Your task to perform on an android device: clear all cookies in the chrome app Image 0: 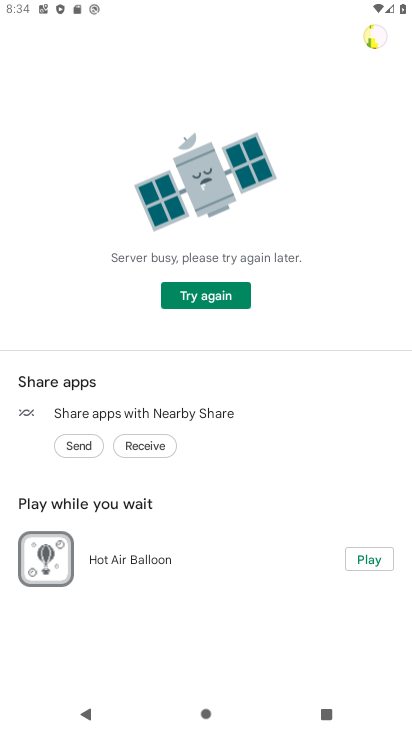
Step 0: press home button
Your task to perform on an android device: clear all cookies in the chrome app Image 1: 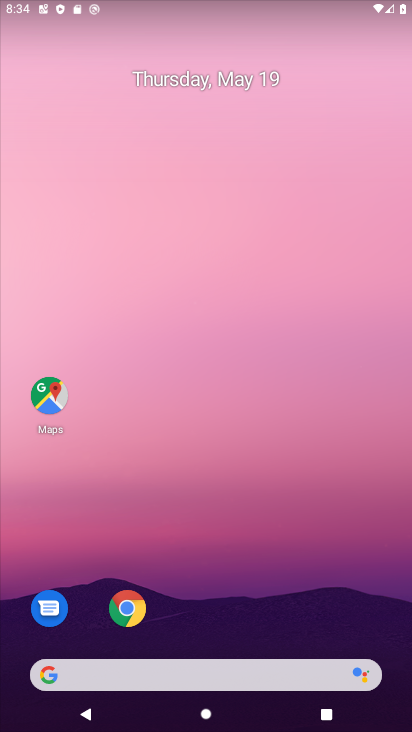
Step 1: click (134, 613)
Your task to perform on an android device: clear all cookies in the chrome app Image 2: 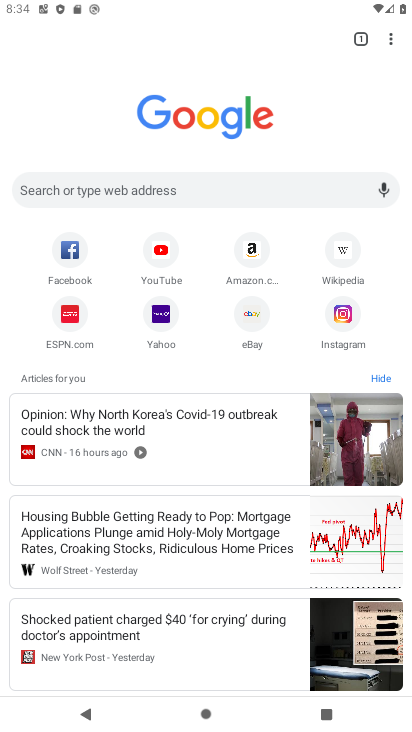
Step 2: click (390, 38)
Your task to perform on an android device: clear all cookies in the chrome app Image 3: 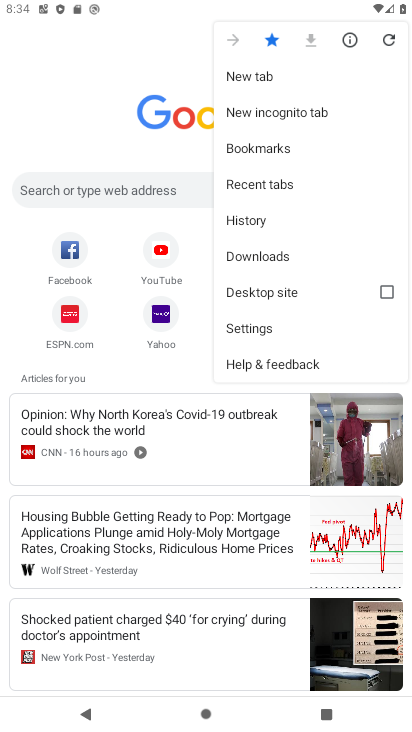
Step 3: click (261, 330)
Your task to perform on an android device: clear all cookies in the chrome app Image 4: 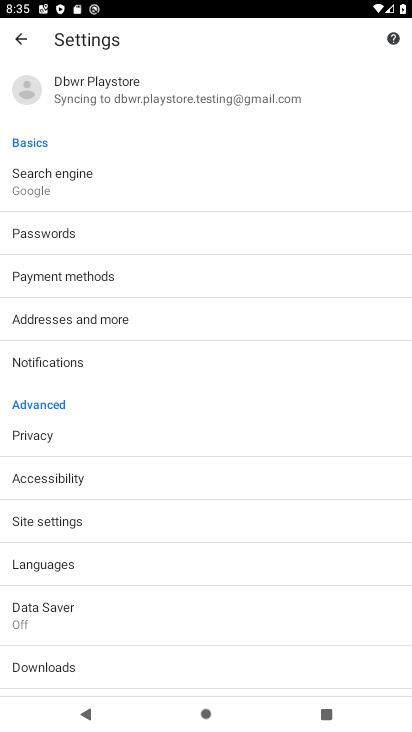
Step 4: click (47, 523)
Your task to perform on an android device: clear all cookies in the chrome app Image 5: 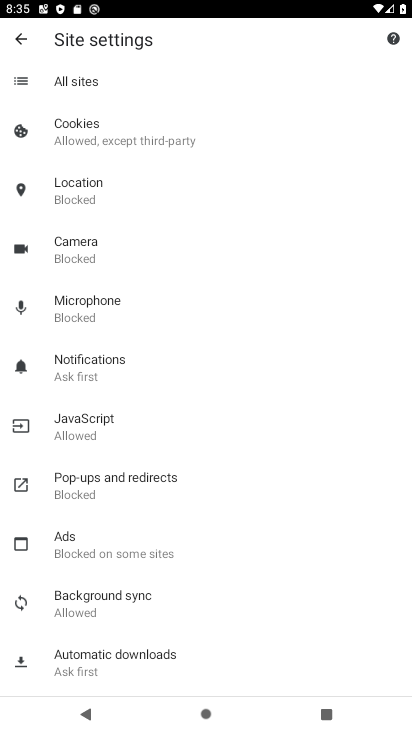
Step 5: click (62, 142)
Your task to perform on an android device: clear all cookies in the chrome app Image 6: 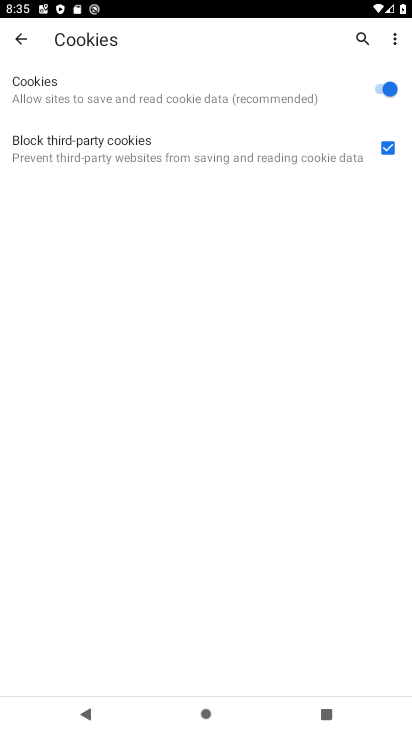
Step 6: click (15, 44)
Your task to perform on an android device: clear all cookies in the chrome app Image 7: 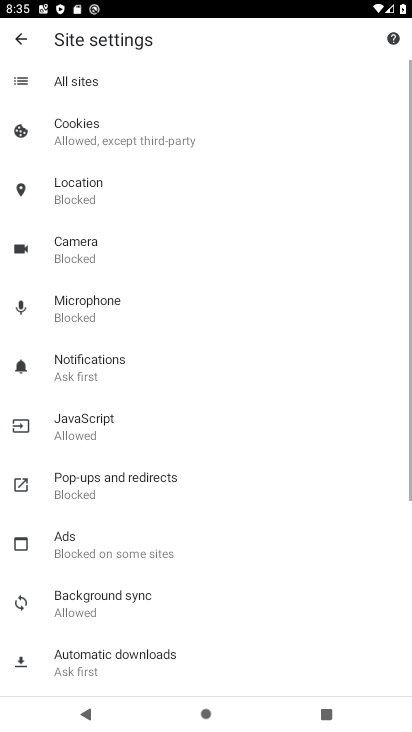
Step 7: click (15, 44)
Your task to perform on an android device: clear all cookies in the chrome app Image 8: 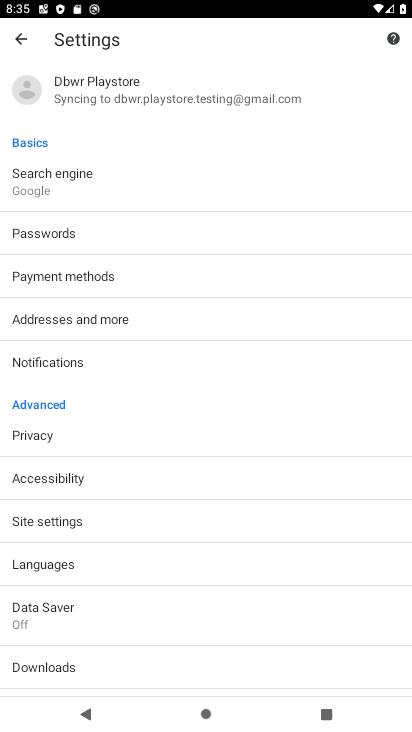
Step 8: click (20, 41)
Your task to perform on an android device: clear all cookies in the chrome app Image 9: 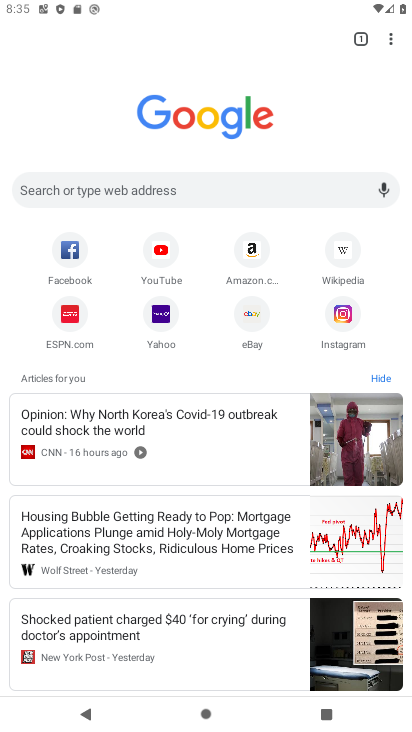
Step 9: click (393, 39)
Your task to perform on an android device: clear all cookies in the chrome app Image 10: 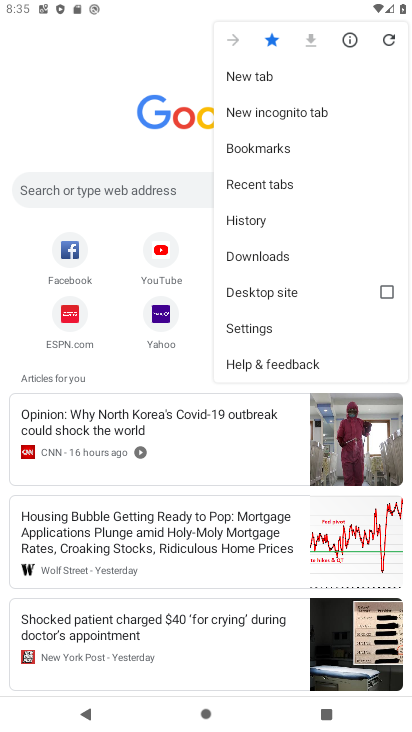
Step 10: click (254, 223)
Your task to perform on an android device: clear all cookies in the chrome app Image 11: 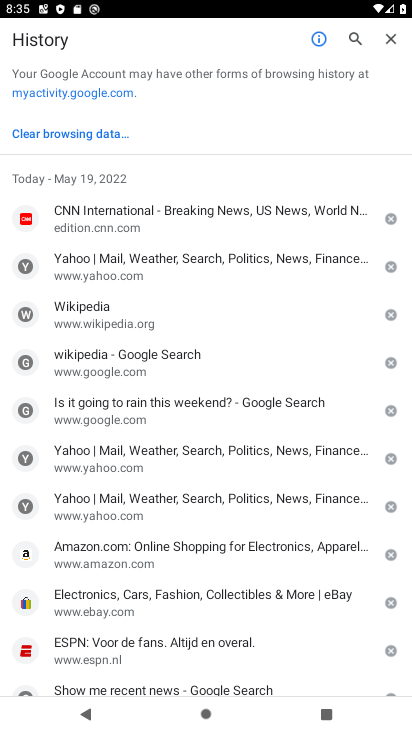
Step 11: click (77, 143)
Your task to perform on an android device: clear all cookies in the chrome app Image 12: 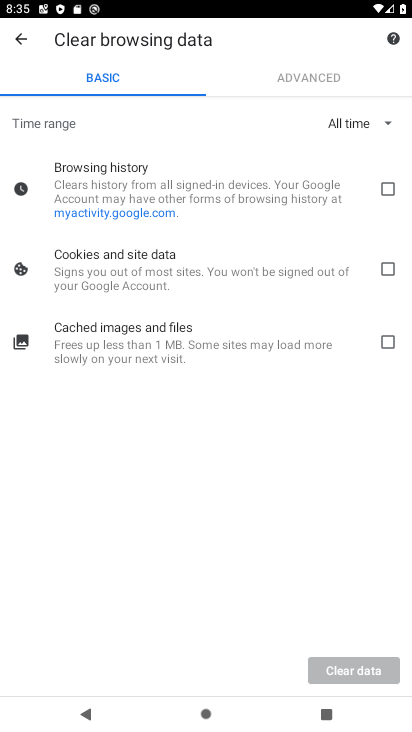
Step 12: click (393, 275)
Your task to perform on an android device: clear all cookies in the chrome app Image 13: 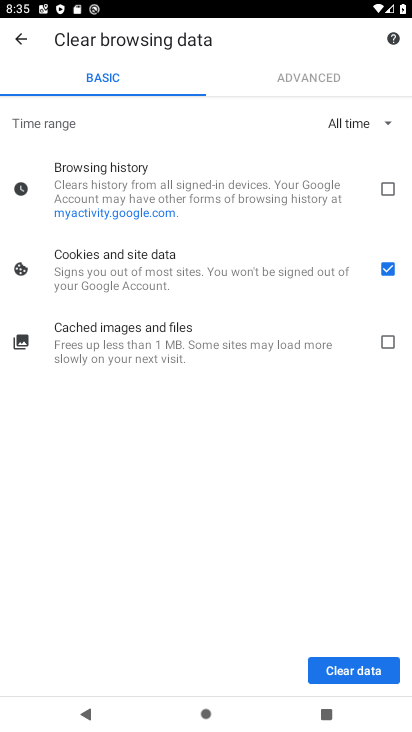
Step 13: click (336, 678)
Your task to perform on an android device: clear all cookies in the chrome app Image 14: 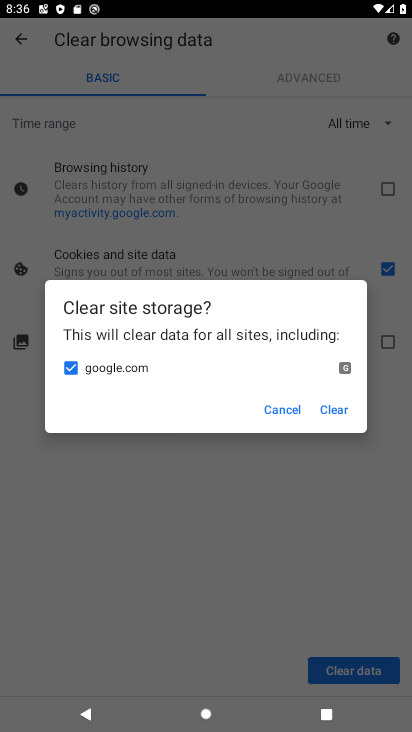
Step 14: click (340, 416)
Your task to perform on an android device: clear all cookies in the chrome app Image 15: 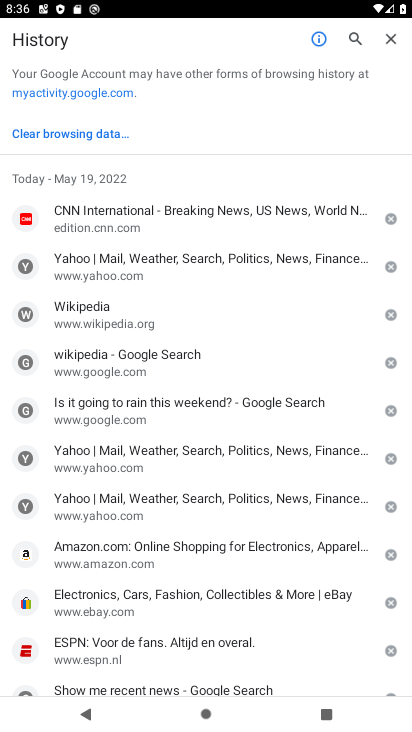
Step 15: task complete